Your task to perform on an android device: Open sound settings Image 0: 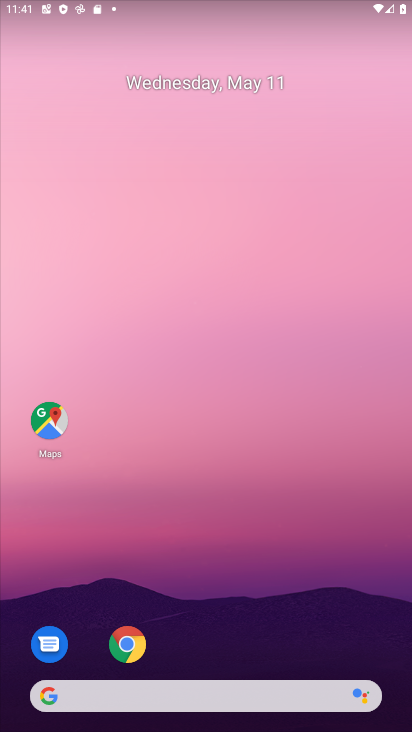
Step 0: drag from (335, 638) to (300, 281)
Your task to perform on an android device: Open sound settings Image 1: 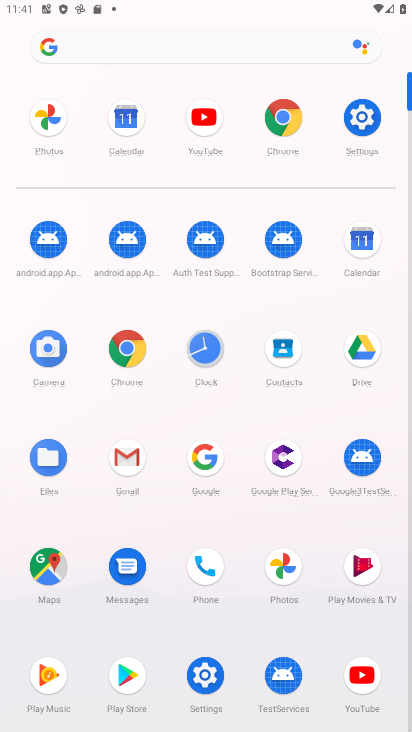
Step 1: click (363, 105)
Your task to perform on an android device: Open sound settings Image 2: 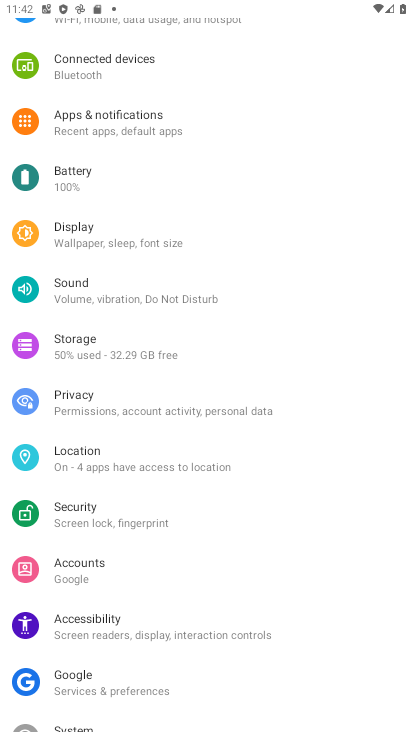
Step 2: click (133, 283)
Your task to perform on an android device: Open sound settings Image 3: 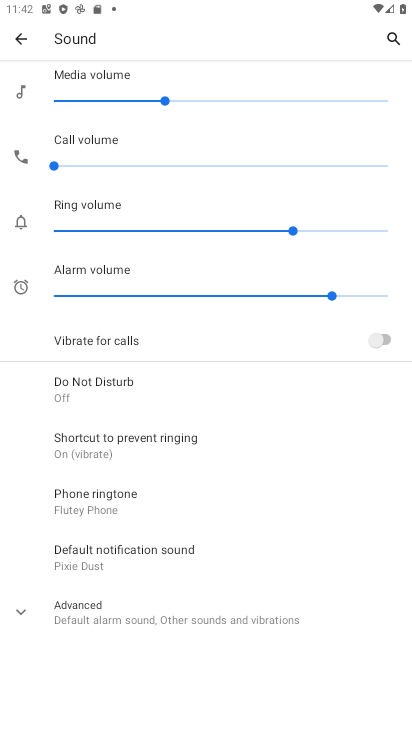
Step 3: task complete